Your task to perform on an android device: turn on improve location accuracy Image 0: 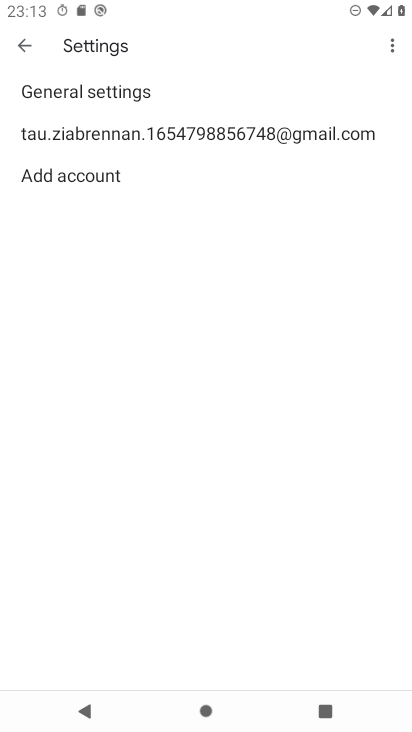
Step 0: press home button
Your task to perform on an android device: turn on improve location accuracy Image 1: 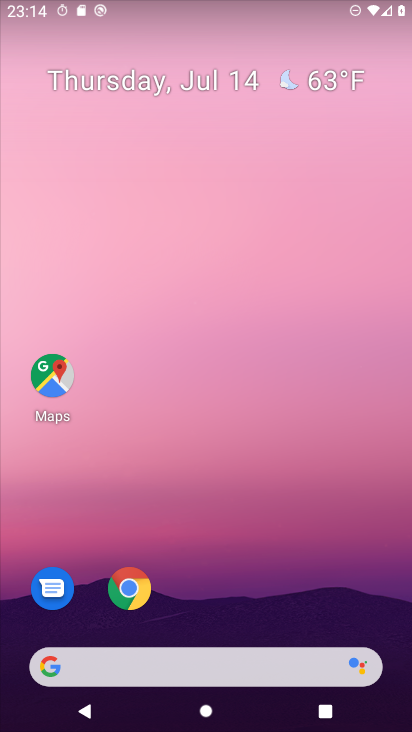
Step 1: drag from (315, 585) to (359, 93)
Your task to perform on an android device: turn on improve location accuracy Image 2: 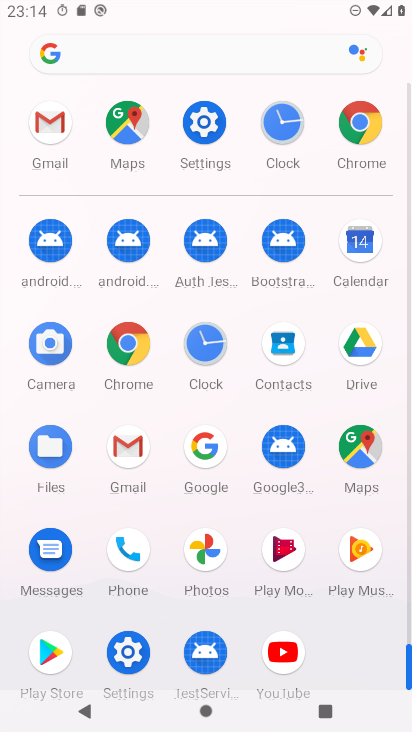
Step 2: click (208, 131)
Your task to perform on an android device: turn on improve location accuracy Image 3: 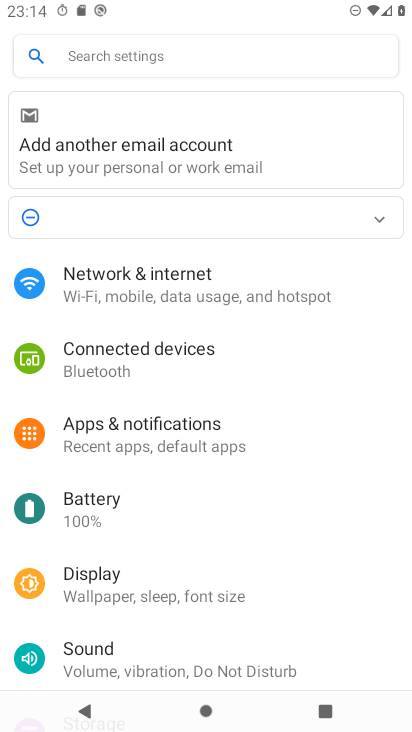
Step 3: drag from (318, 399) to (337, 333)
Your task to perform on an android device: turn on improve location accuracy Image 4: 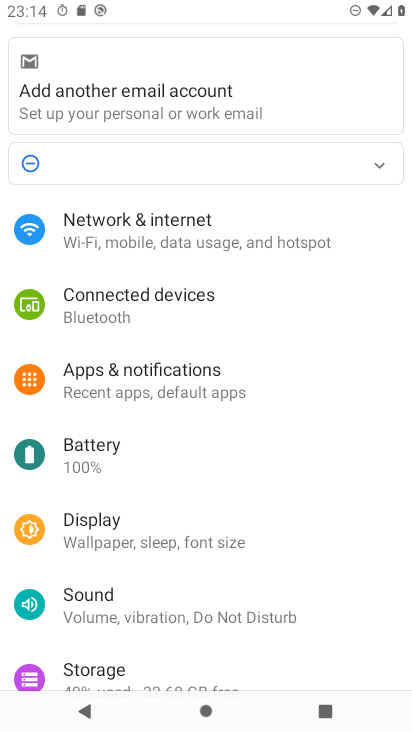
Step 4: drag from (342, 434) to (345, 350)
Your task to perform on an android device: turn on improve location accuracy Image 5: 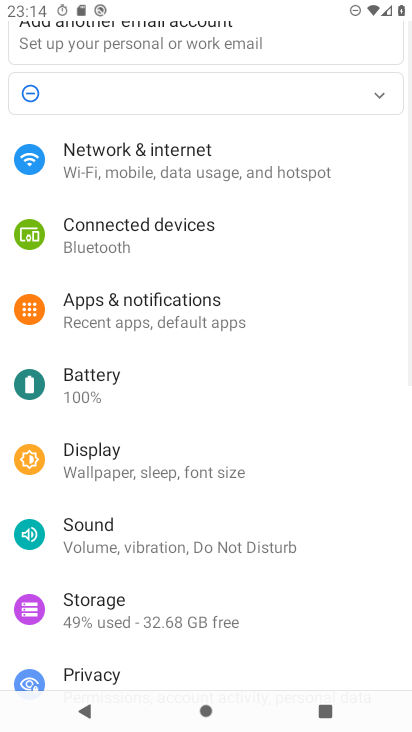
Step 5: drag from (331, 464) to (334, 358)
Your task to perform on an android device: turn on improve location accuracy Image 6: 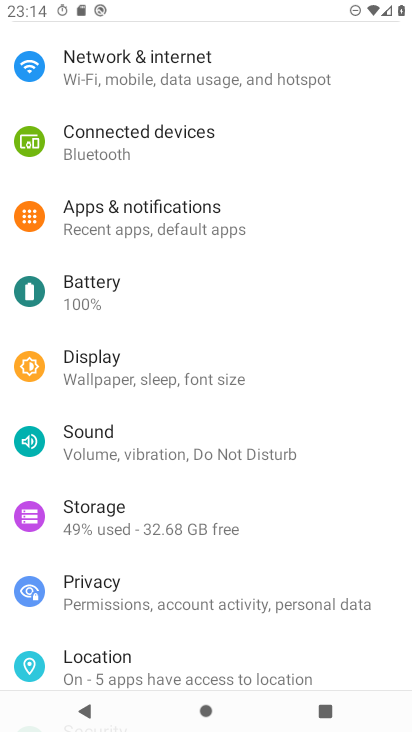
Step 6: drag from (334, 454) to (344, 350)
Your task to perform on an android device: turn on improve location accuracy Image 7: 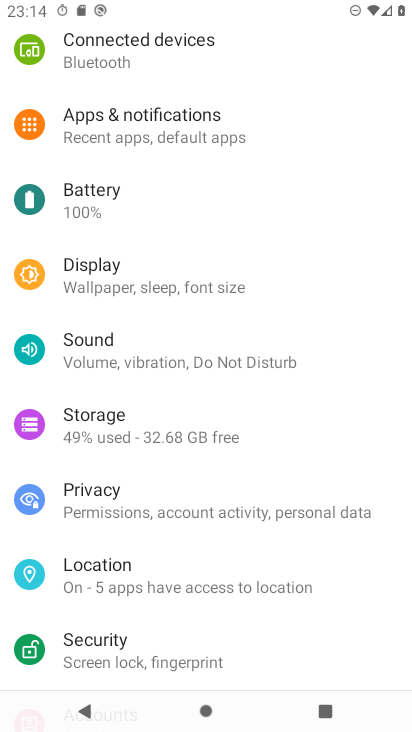
Step 7: drag from (341, 449) to (343, 343)
Your task to perform on an android device: turn on improve location accuracy Image 8: 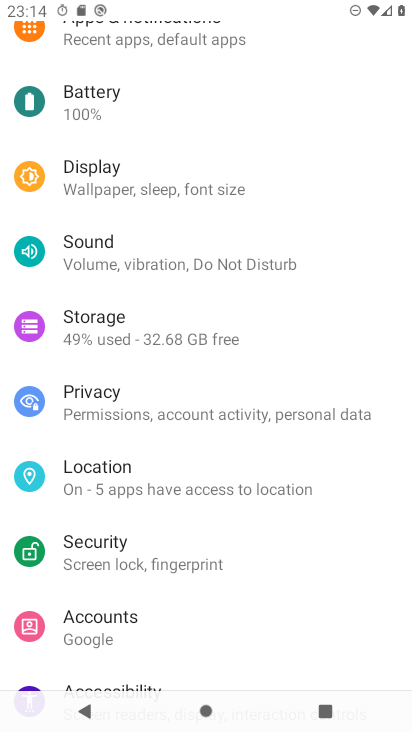
Step 8: drag from (346, 455) to (352, 322)
Your task to perform on an android device: turn on improve location accuracy Image 9: 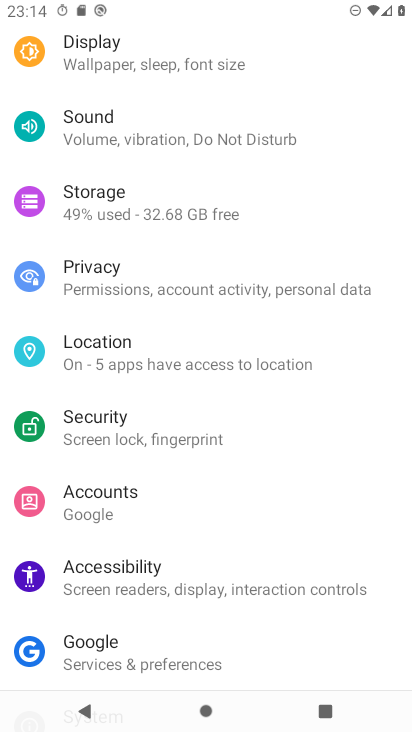
Step 9: drag from (354, 421) to (361, 322)
Your task to perform on an android device: turn on improve location accuracy Image 10: 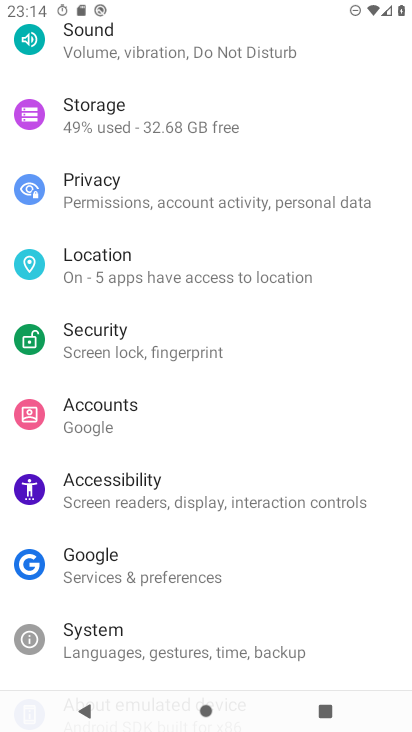
Step 10: drag from (344, 408) to (343, 225)
Your task to perform on an android device: turn on improve location accuracy Image 11: 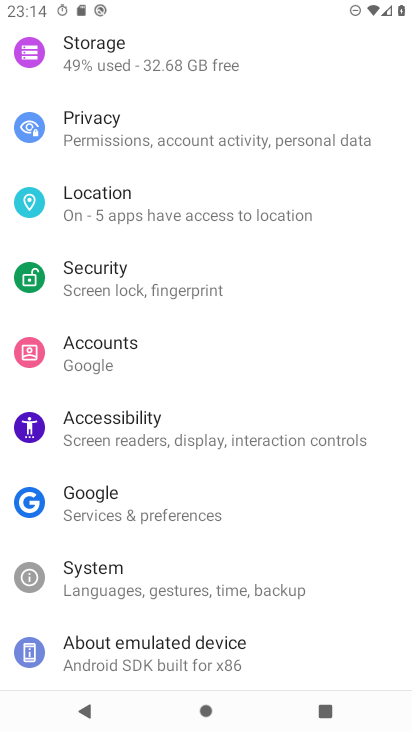
Step 11: click (271, 216)
Your task to perform on an android device: turn on improve location accuracy Image 12: 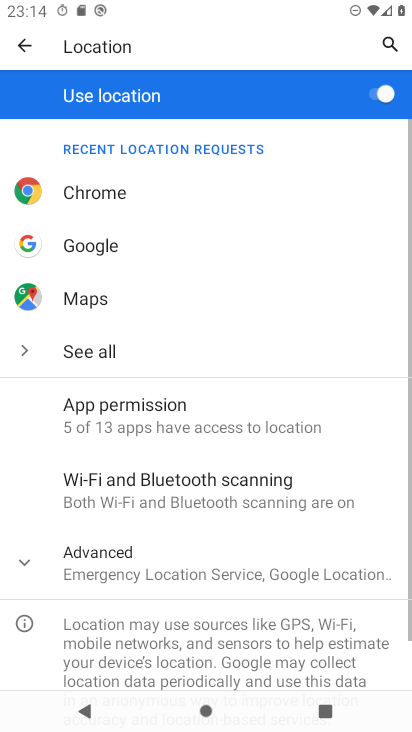
Step 12: click (291, 591)
Your task to perform on an android device: turn on improve location accuracy Image 13: 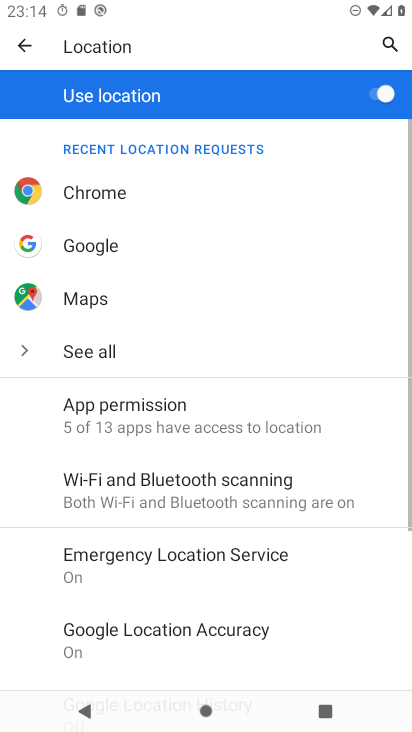
Step 13: drag from (291, 591) to (322, 414)
Your task to perform on an android device: turn on improve location accuracy Image 14: 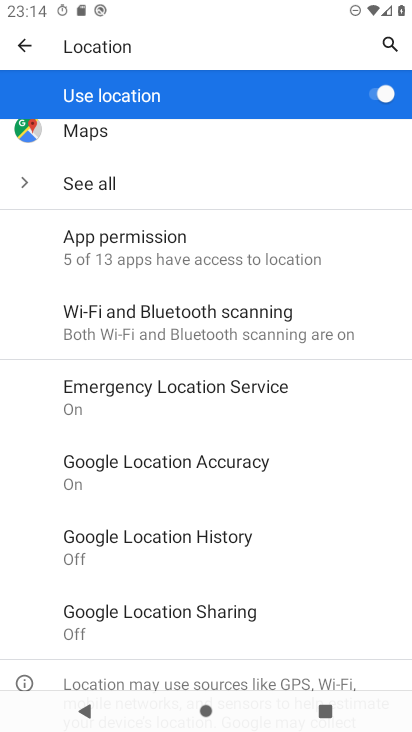
Step 14: drag from (311, 540) to (321, 365)
Your task to perform on an android device: turn on improve location accuracy Image 15: 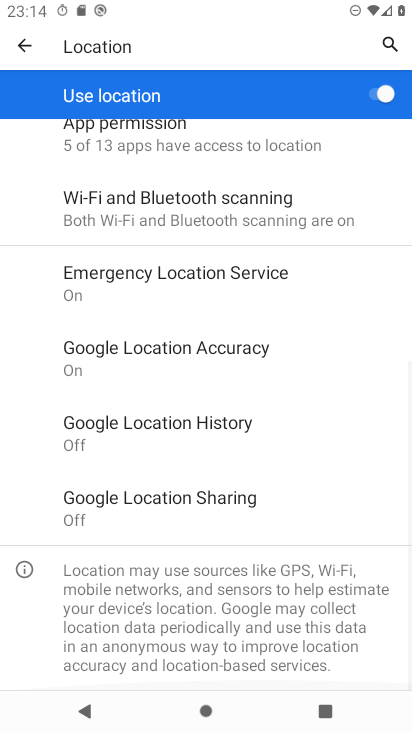
Step 15: click (229, 358)
Your task to perform on an android device: turn on improve location accuracy Image 16: 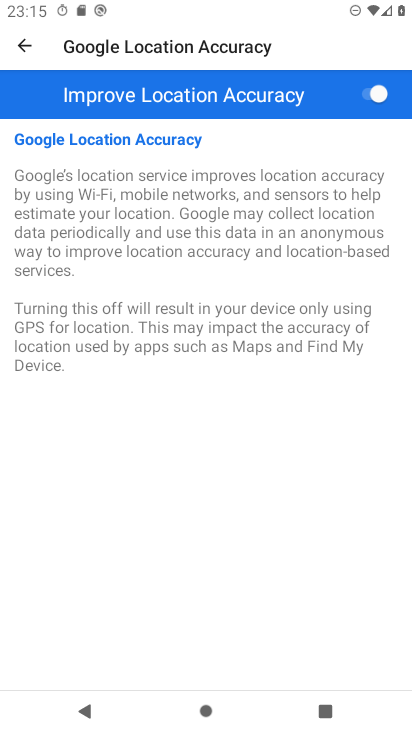
Step 16: task complete